Your task to perform on an android device: Search for logitech g910 on newegg.com, select the first entry, and add it to the cart. Image 0: 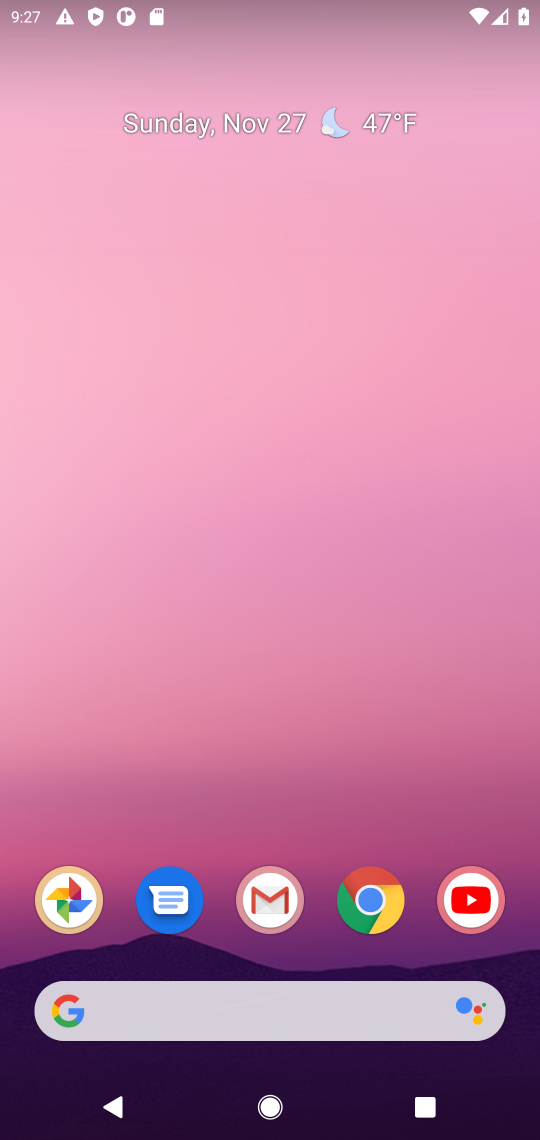
Step 0: click (343, 820)
Your task to perform on an android device: Search for logitech g910 on newegg.com, select the first entry, and add it to the cart. Image 1: 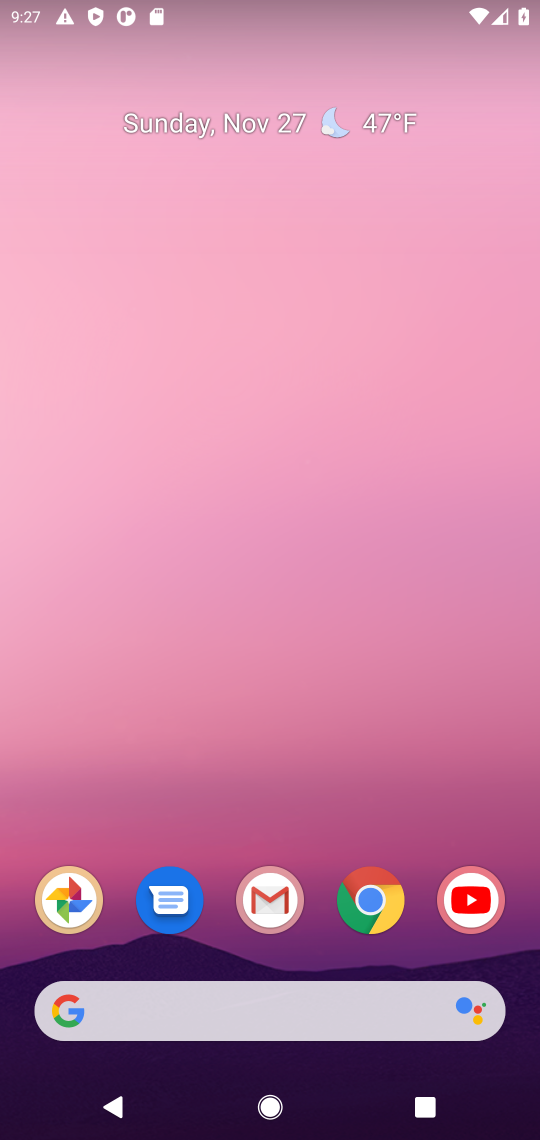
Step 1: click (385, 906)
Your task to perform on an android device: Search for logitech g910 on newegg.com, select the first entry, and add it to the cart. Image 2: 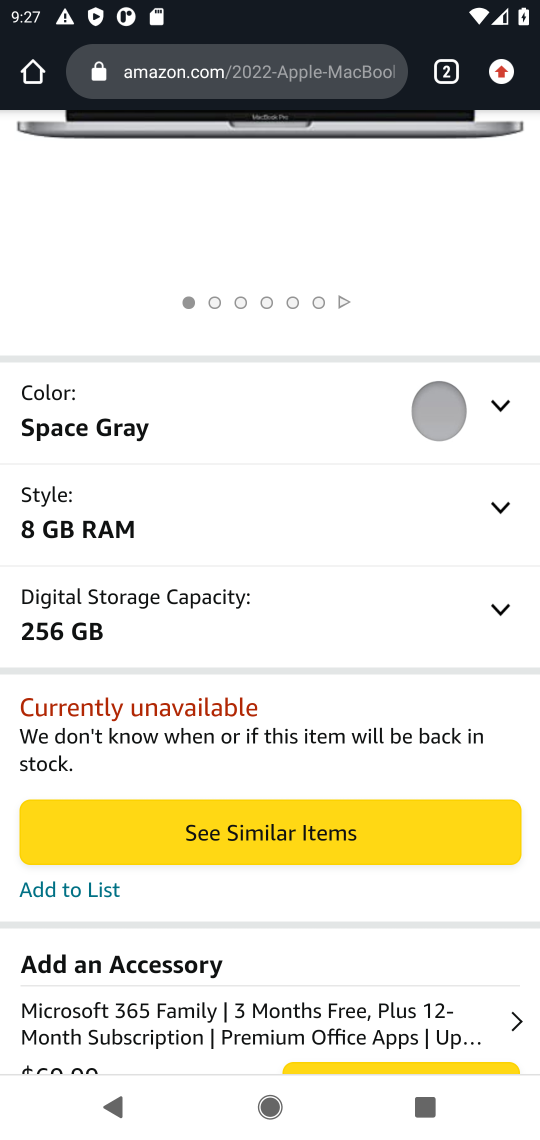
Step 2: click (185, 72)
Your task to perform on an android device: Search for logitech g910 on newegg.com, select the first entry, and add it to the cart. Image 3: 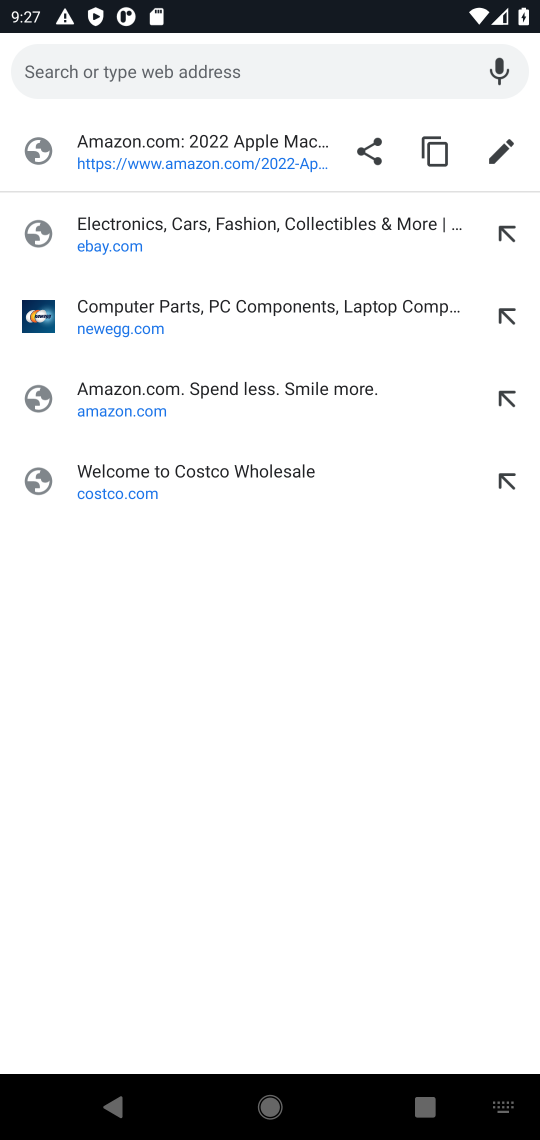
Step 3: click (94, 317)
Your task to perform on an android device: Search for logitech g910 on newegg.com, select the first entry, and add it to the cart. Image 4: 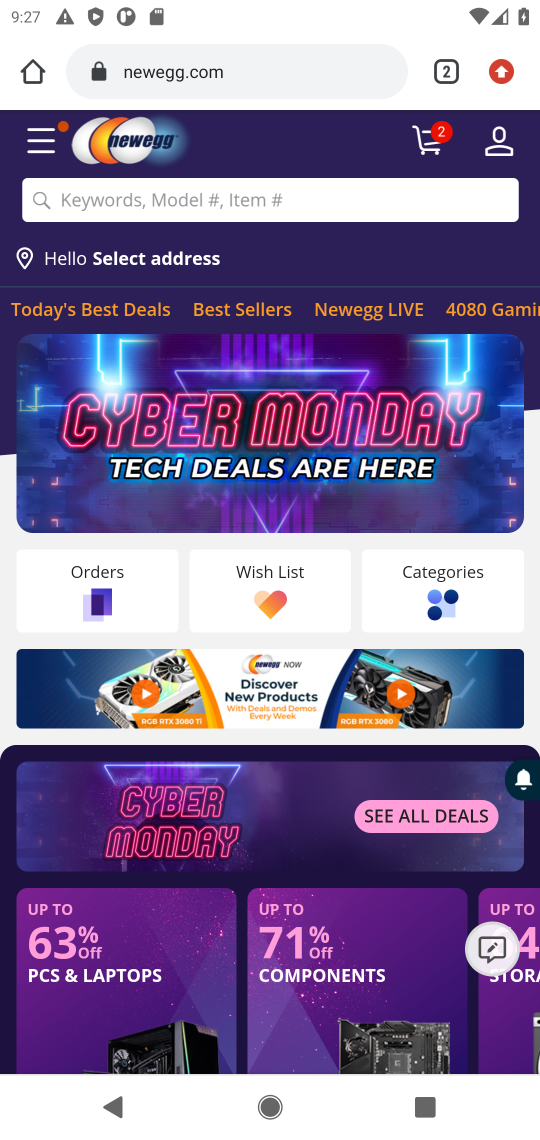
Step 4: click (75, 198)
Your task to perform on an android device: Search for logitech g910 on newegg.com, select the first entry, and add it to the cart. Image 5: 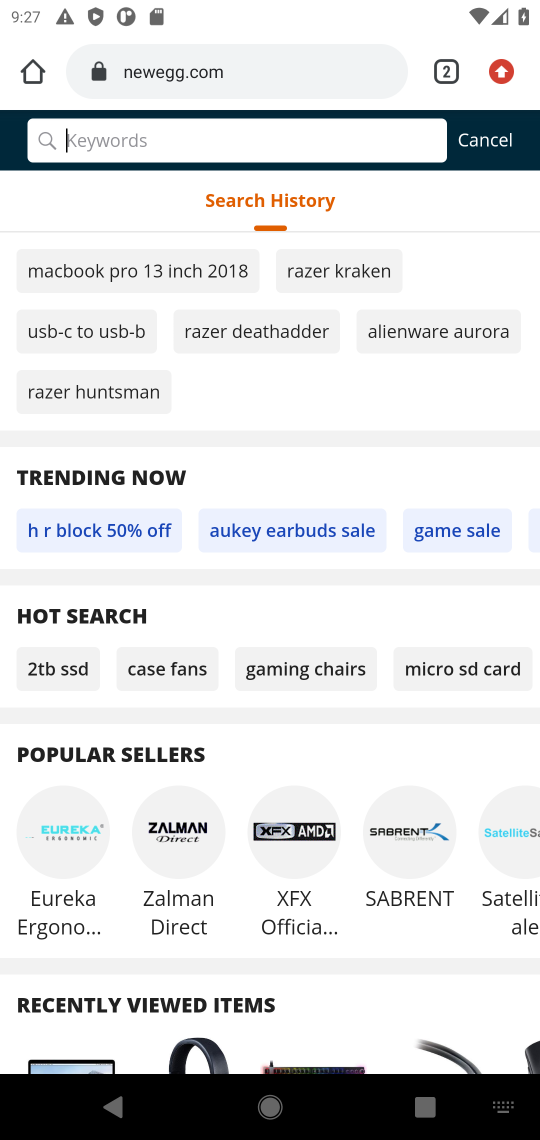
Step 5: type "logitech g910"
Your task to perform on an android device: Search for logitech g910 on newegg.com, select the first entry, and add it to the cart. Image 6: 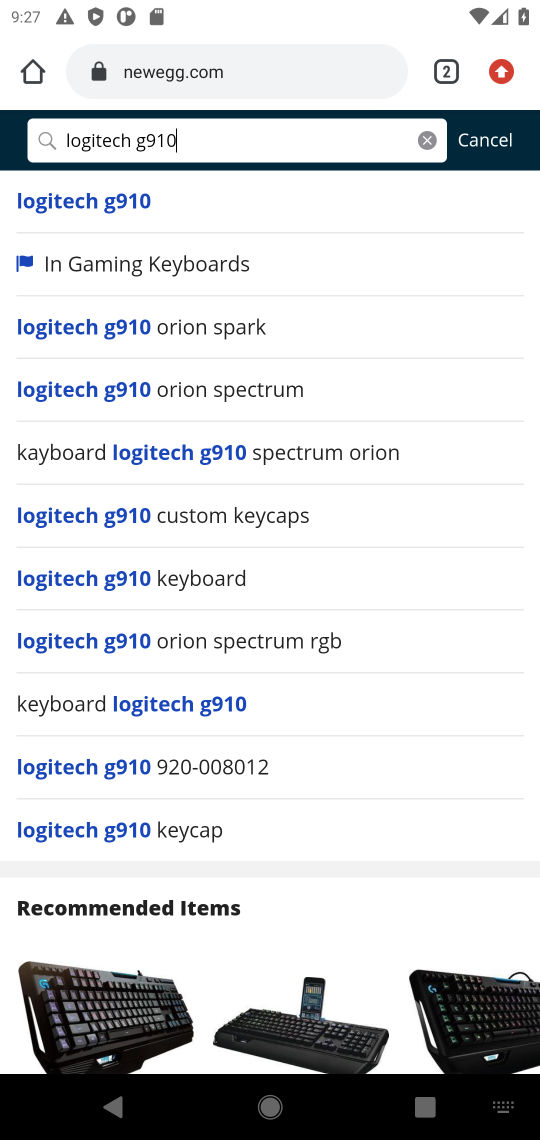
Step 6: click (78, 211)
Your task to perform on an android device: Search for logitech g910 on newegg.com, select the first entry, and add it to the cart. Image 7: 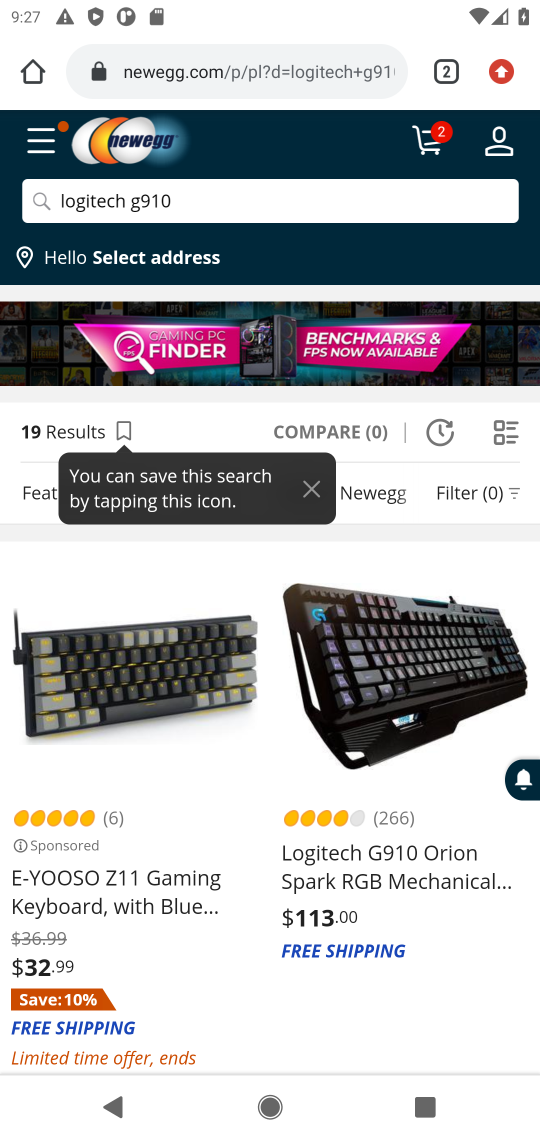
Step 7: task complete